Your task to perform on an android device: toggle sleep mode Image 0: 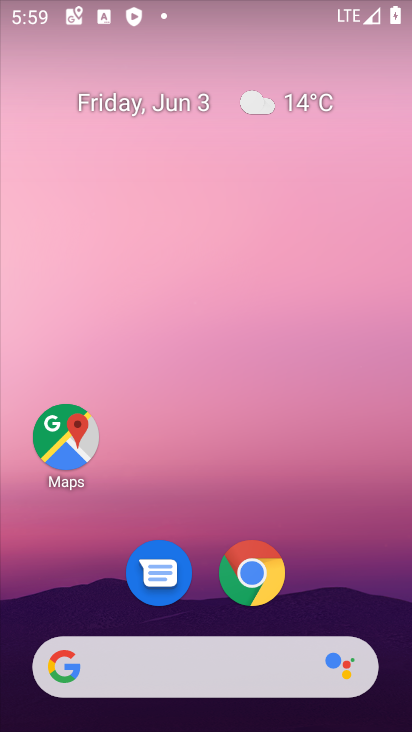
Step 0: drag from (239, 666) to (275, 1)
Your task to perform on an android device: toggle sleep mode Image 1: 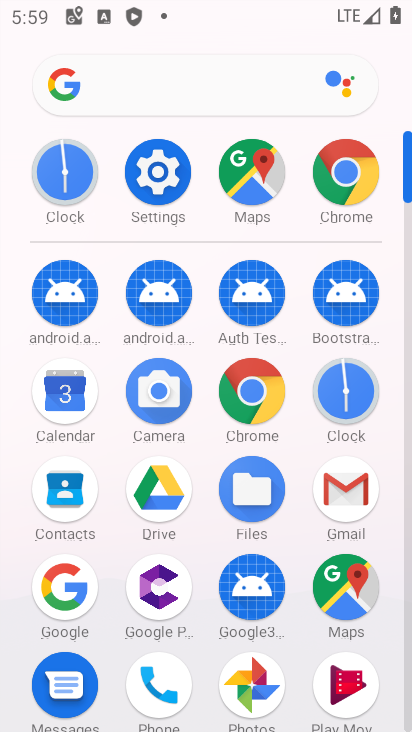
Step 1: click (143, 163)
Your task to perform on an android device: toggle sleep mode Image 2: 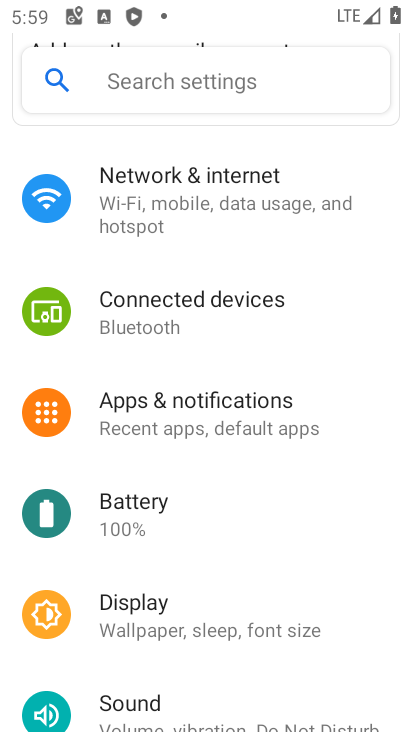
Step 2: click (232, 631)
Your task to perform on an android device: toggle sleep mode Image 3: 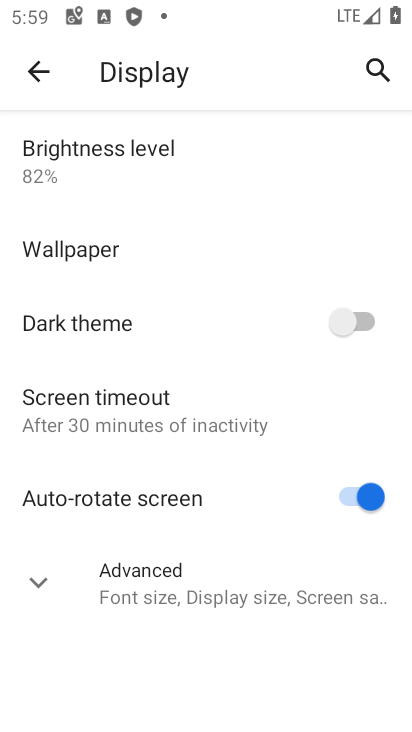
Step 3: task complete